Your task to perform on an android device: change the clock display to digital Image 0: 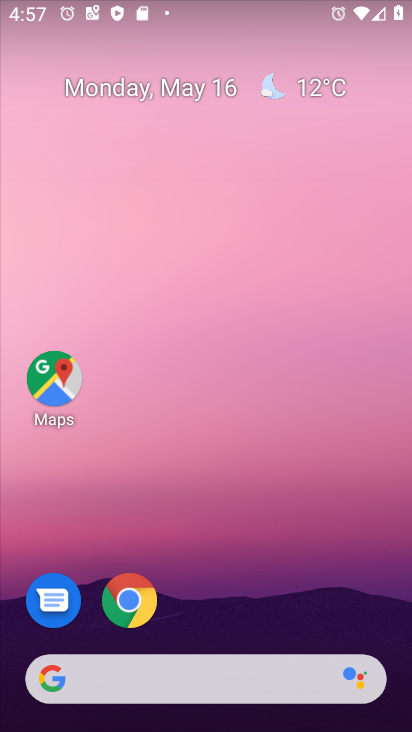
Step 0: drag from (216, 618) to (219, 306)
Your task to perform on an android device: change the clock display to digital Image 1: 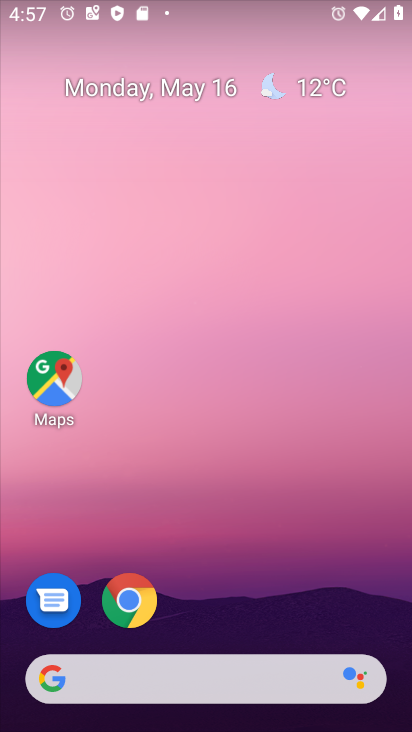
Step 1: drag from (311, 624) to (295, 247)
Your task to perform on an android device: change the clock display to digital Image 2: 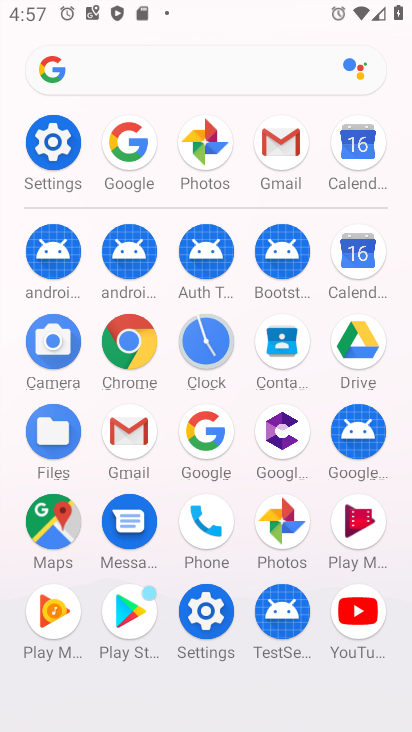
Step 2: click (204, 346)
Your task to perform on an android device: change the clock display to digital Image 3: 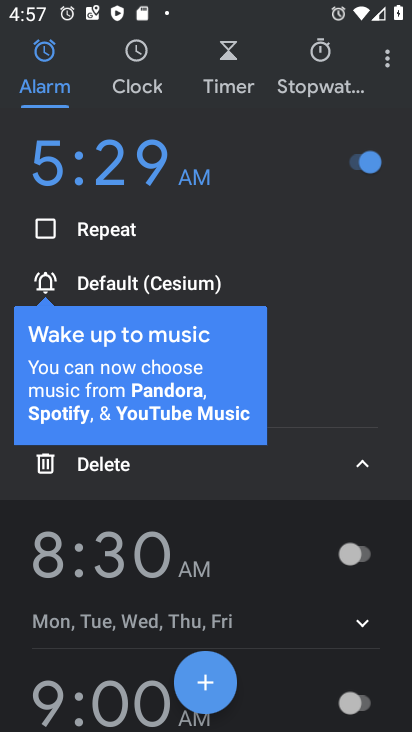
Step 3: click (383, 61)
Your task to perform on an android device: change the clock display to digital Image 4: 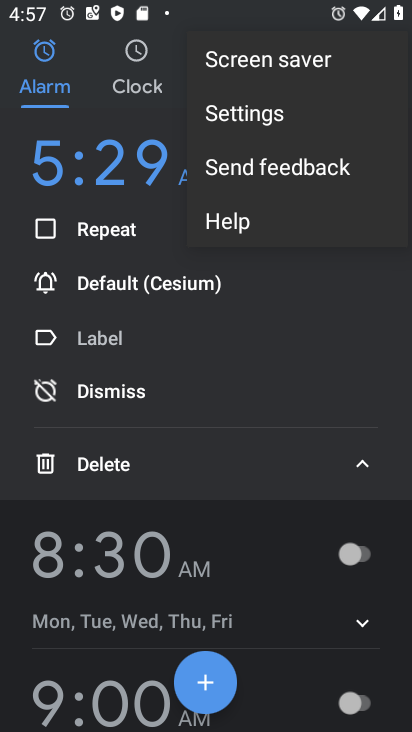
Step 4: click (239, 115)
Your task to perform on an android device: change the clock display to digital Image 5: 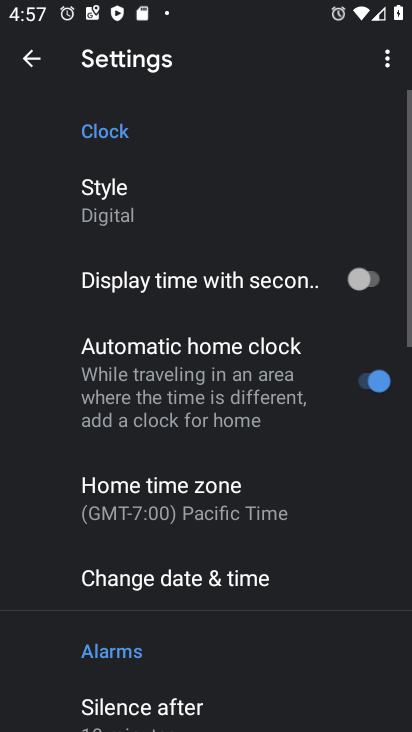
Step 5: click (126, 206)
Your task to perform on an android device: change the clock display to digital Image 6: 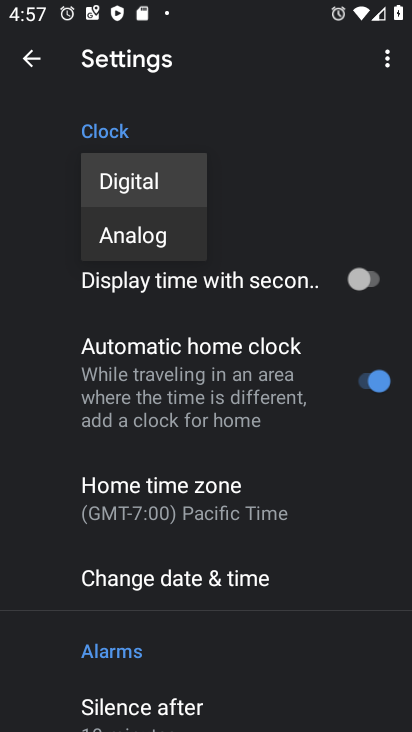
Step 6: task complete